Your task to perform on an android device: Open privacy settings Image 0: 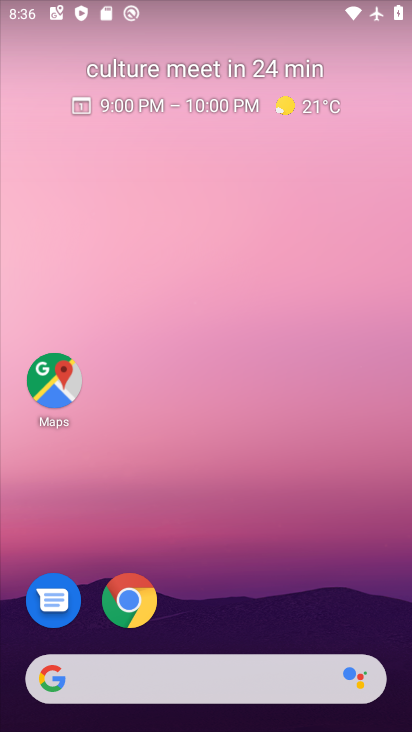
Step 0: drag from (356, 601) to (306, 79)
Your task to perform on an android device: Open privacy settings Image 1: 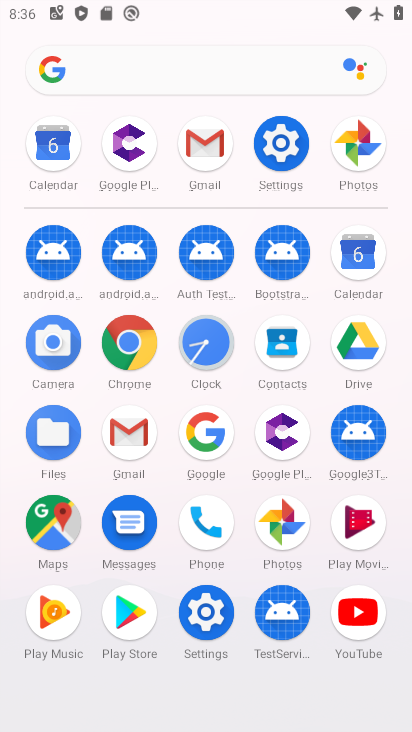
Step 1: click (206, 611)
Your task to perform on an android device: Open privacy settings Image 2: 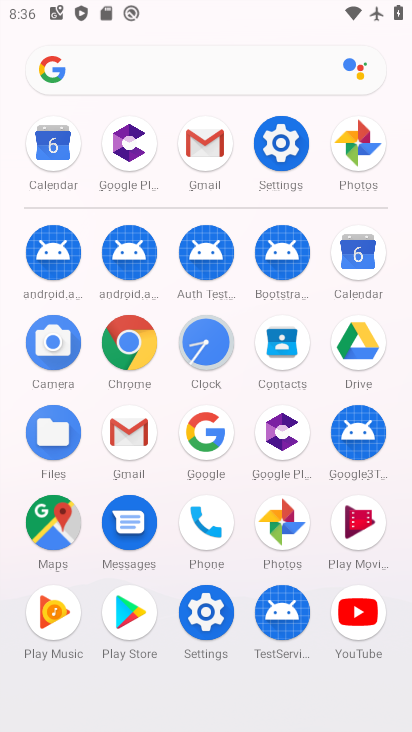
Step 2: click (206, 611)
Your task to perform on an android device: Open privacy settings Image 3: 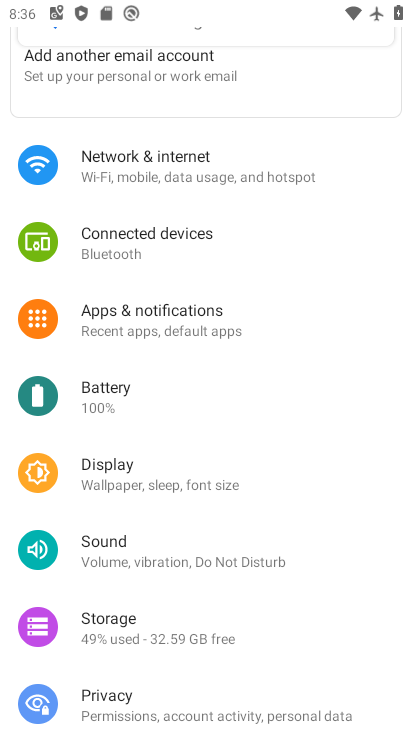
Step 3: drag from (285, 621) to (321, 303)
Your task to perform on an android device: Open privacy settings Image 4: 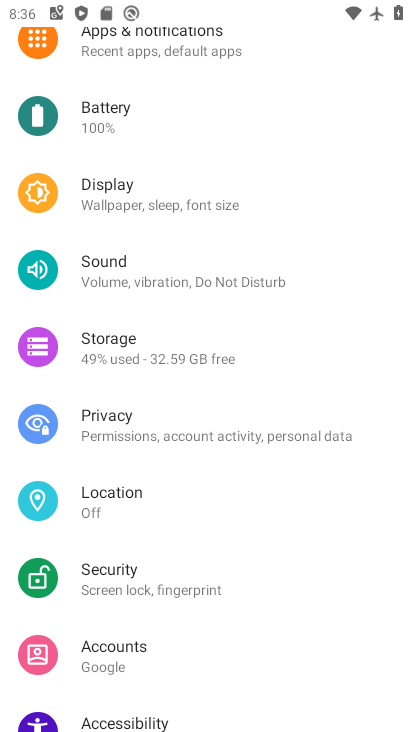
Step 4: click (109, 412)
Your task to perform on an android device: Open privacy settings Image 5: 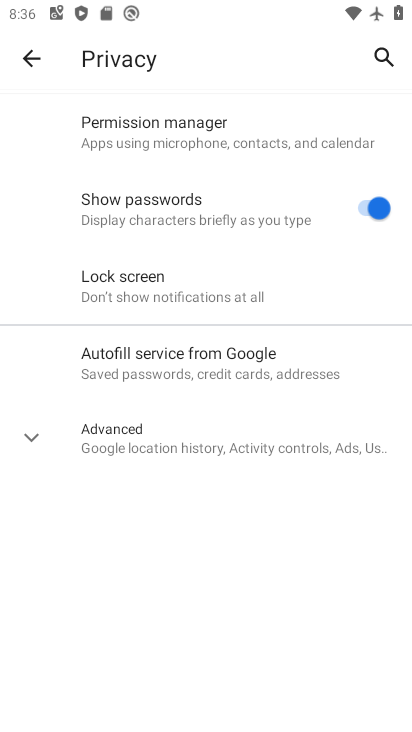
Step 5: click (35, 440)
Your task to perform on an android device: Open privacy settings Image 6: 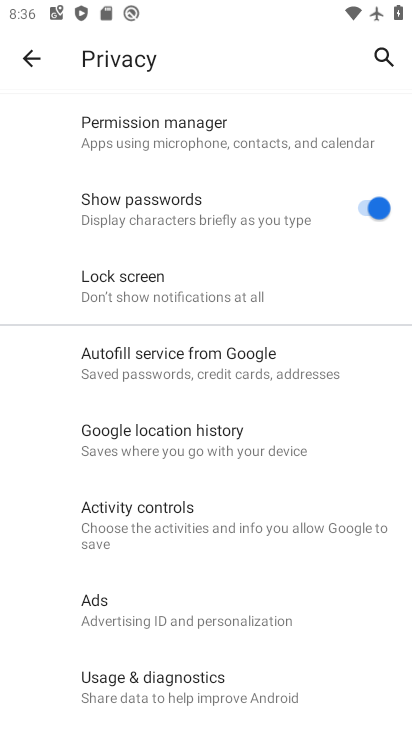
Step 6: task complete